Your task to perform on an android device: Open ESPN.com Image 0: 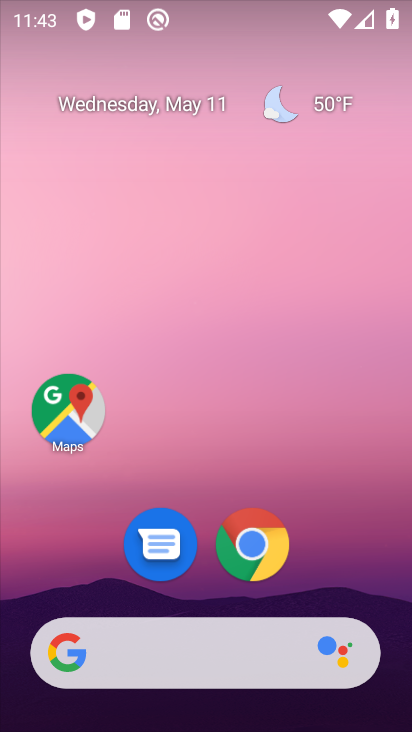
Step 0: drag from (182, 361) to (191, 6)
Your task to perform on an android device: Open ESPN.com Image 1: 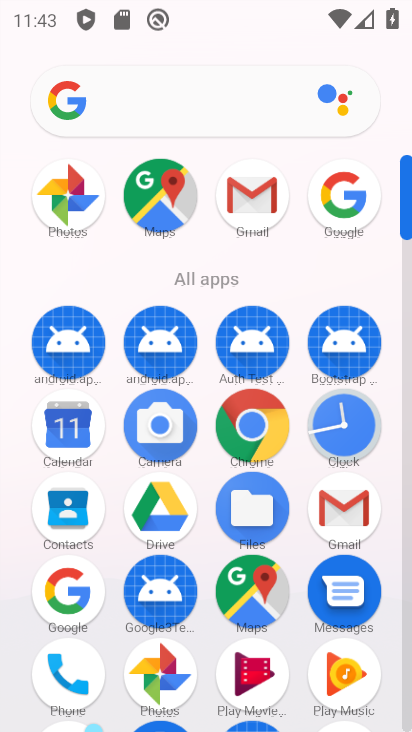
Step 1: click (229, 426)
Your task to perform on an android device: Open ESPN.com Image 2: 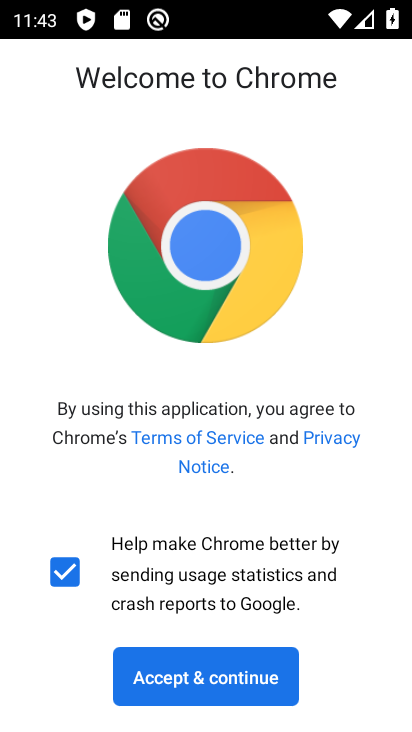
Step 2: click (257, 669)
Your task to perform on an android device: Open ESPN.com Image 3: 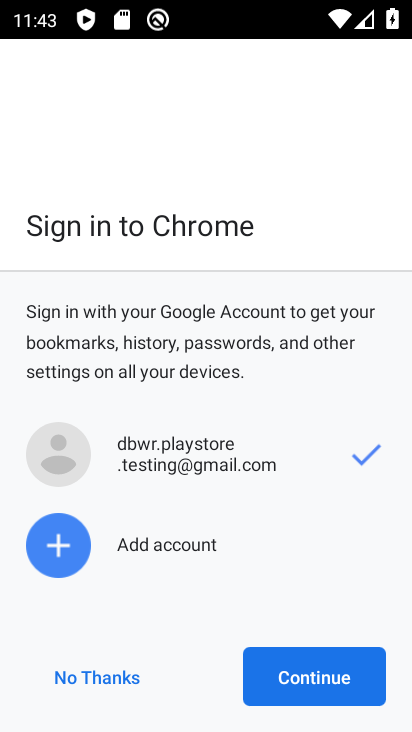
Step 3: click (309, 673)
Your task to perform on an android device: Open ESPN.com Image 4: 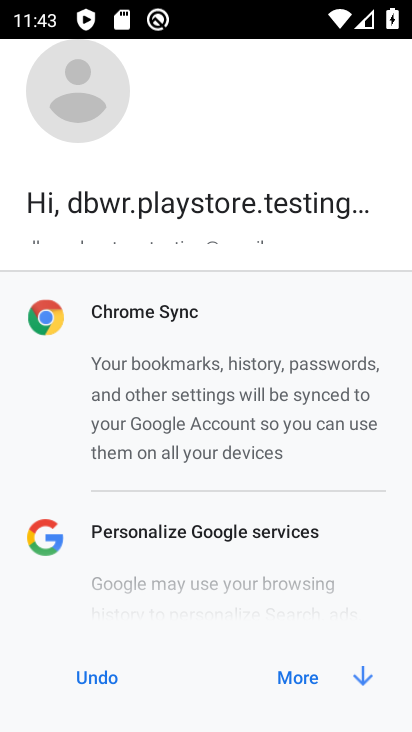
Step 4: click (309, 673)
Your task to perform on an android device: Open ESPN.com Image 5: 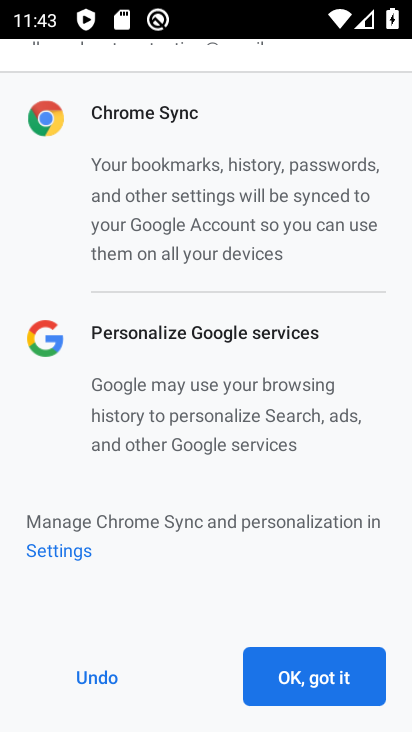
Step 5: click (309, 673)
Your task to perform on an android device: Open ESPN.com Image 6: 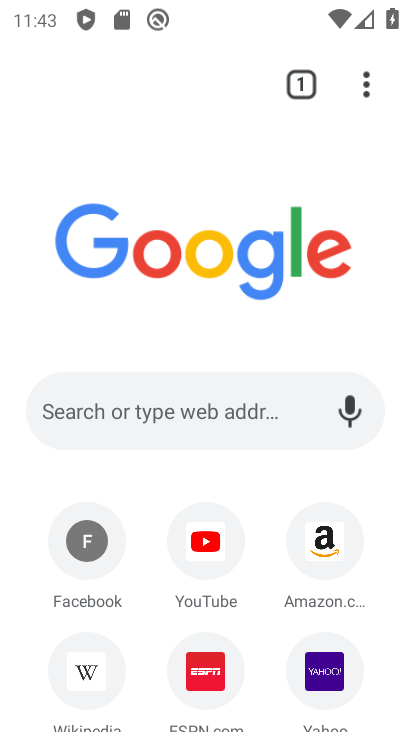
Step 6: click (209, 646)
Your task to perform on an android device: Open ESPN.com Image 7: 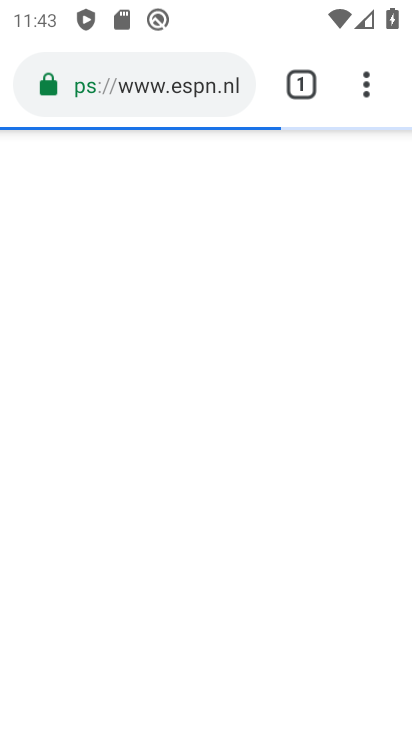
Step 7: task complete